Your task to perform on an android device: Open Maps and search for coffee Image 0: 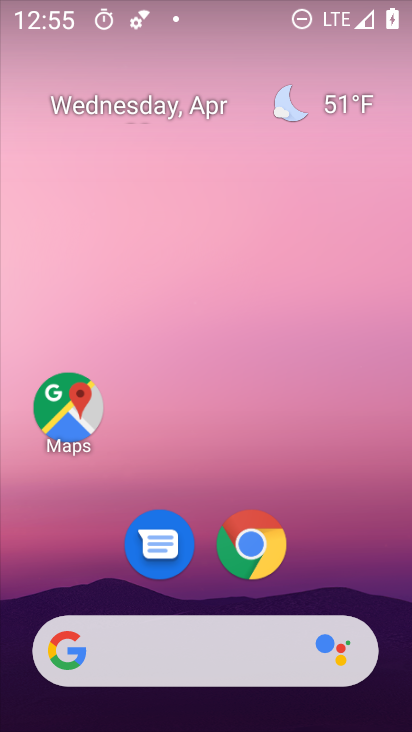
Step 0: drag from (345, 555) to (353, 170)
Your task to perform on an android device: Open Maps and search for coffee Image 1: 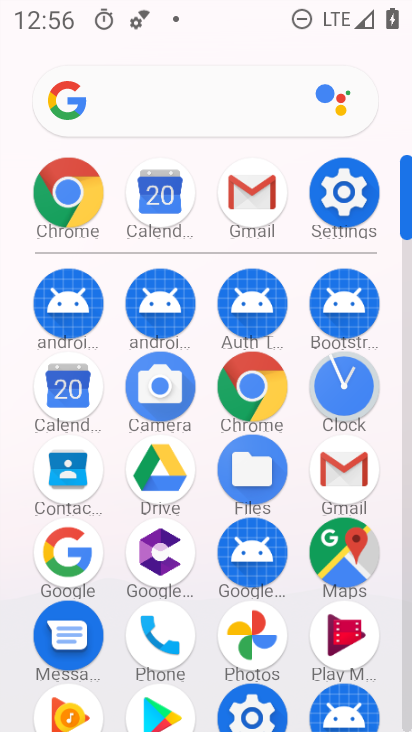
Step 1: click (349, 548)
Your task to perform on an android device: Open Maps and search for coffee Image 2: 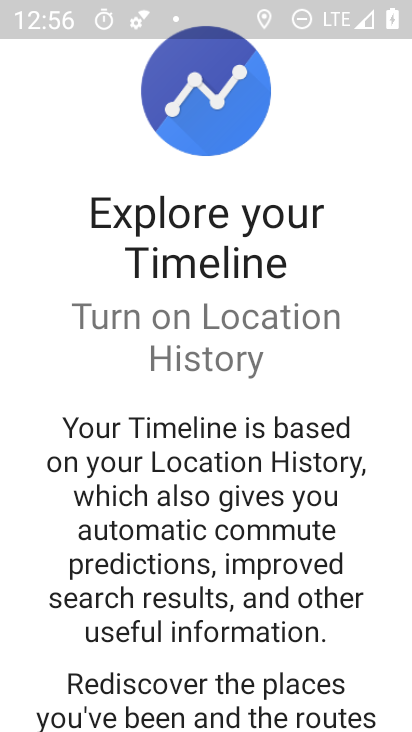
Step 2: press back button
Your task to perform on an android device: Open Maps and search for coffee Image 3: 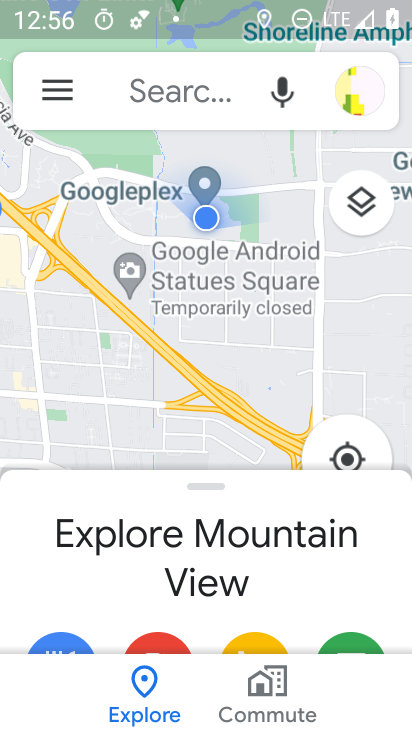
Step 3: click (183, 90)
Your task to perform on an android device: Open Maps and search for coffee Image 4: 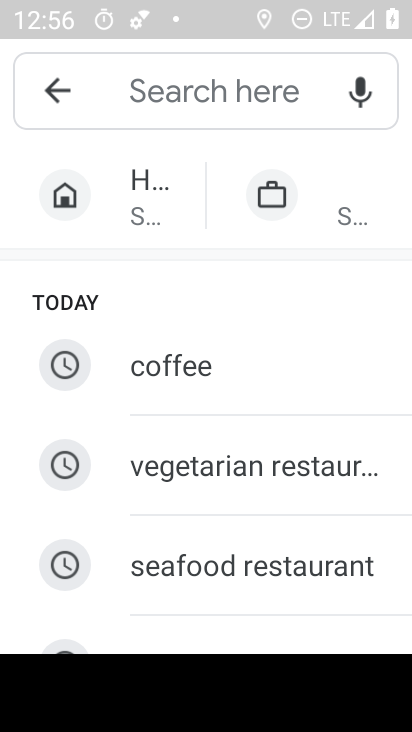
Step 4: type "coffee"
Your task to perform on an android device: Open Maps and search for coffee Image 5: 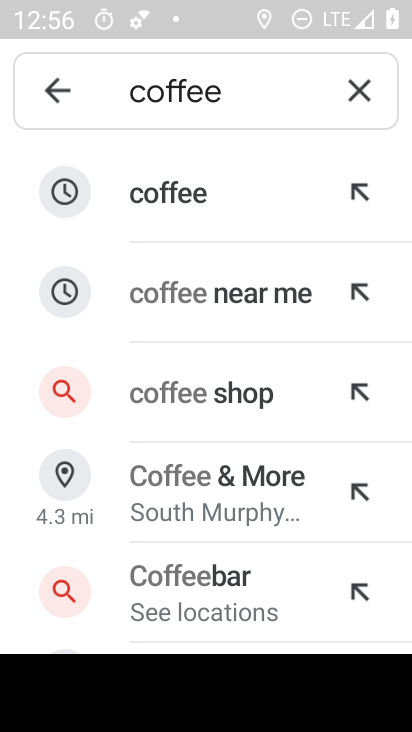
Step 5: click (183, 203)
Your task to perform on an android device: Open Maps and search for coffee Image 6: 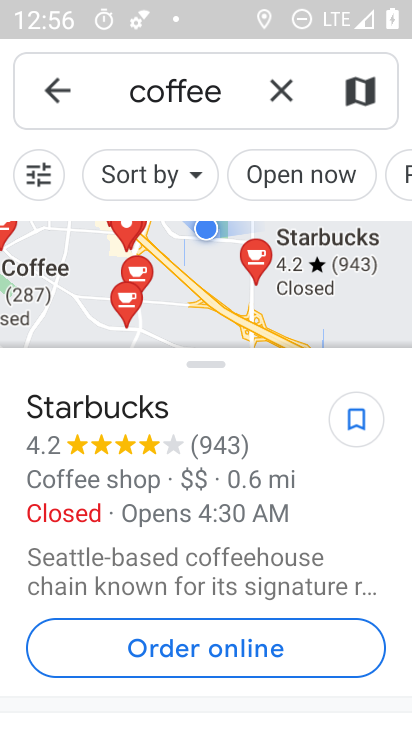
Step 6: task complete